Your task to perform on an android device: turn on notifications settings in the gmail app Image 0: 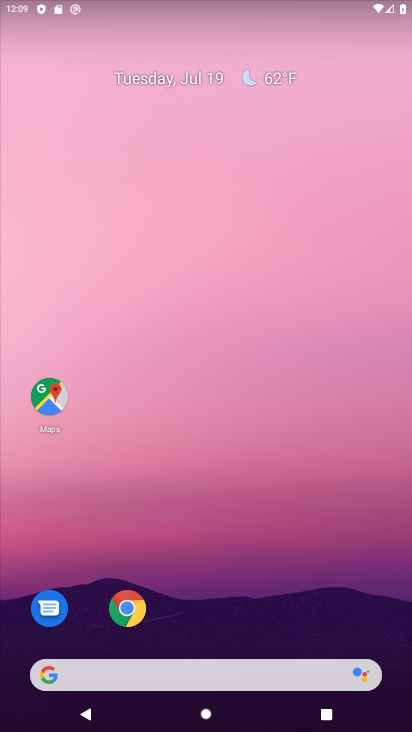
Step 0: drag from (213, 643) to (233, 6)
Your task to perform on an android device: turn on notifications settings in the gmail app Image 1: 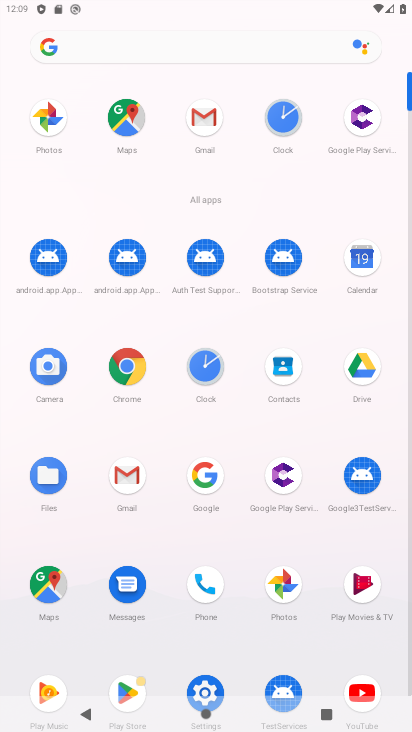
Step 1: click (122, 471)
Your task to perform on an android device: turn on notifications settings in the gmail app Image 2: 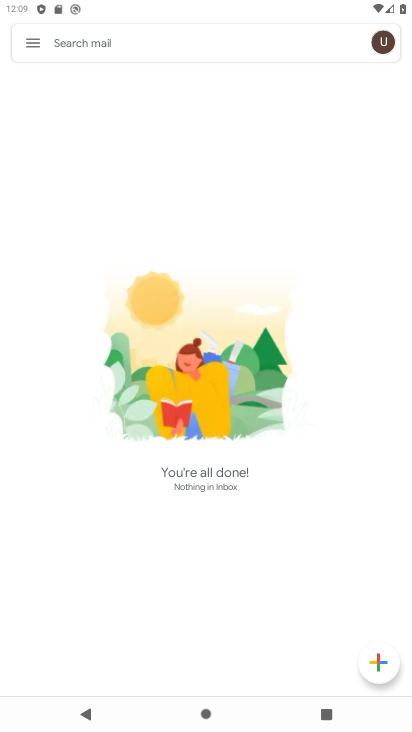
Step 2: click (39, 41)
Your task to perform on an android device: turn on notifications settings in the gmail app Image 3: 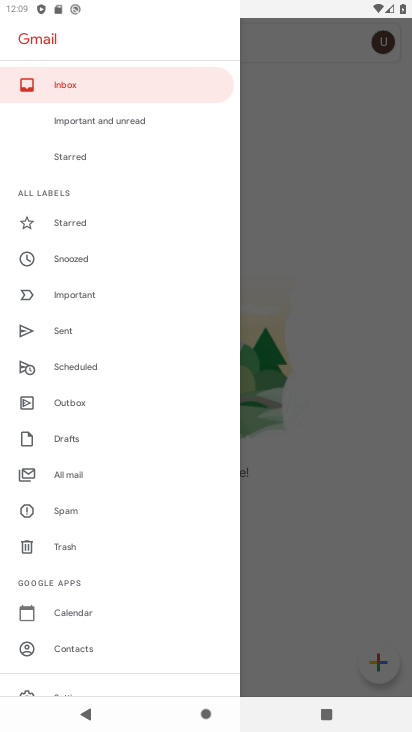
Step 3: drag from (108, 648) to (124, 201)
Your task to perform on an android device: turn on notifications settings in the gmail app Image 4: 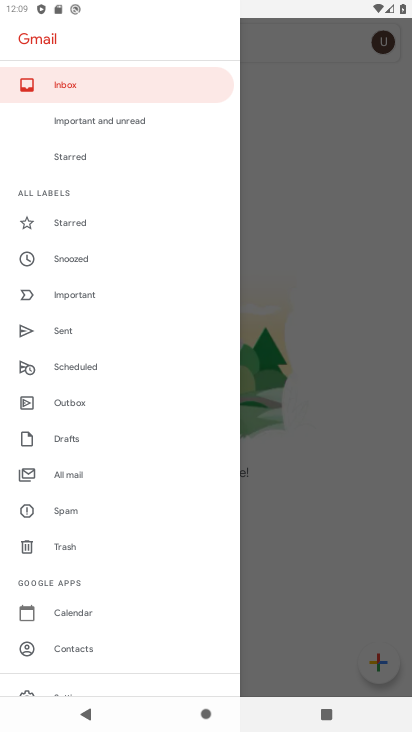
Step 4: drag from (70, 634) to (100, 154)
Your task to perform on an android device: turn on notifications settings in the gmail app Image 5: 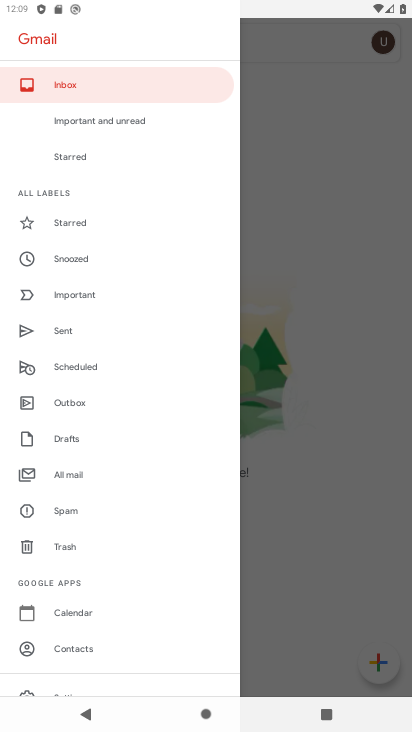
Step 5: drag from (62, 642) to (69, 200)
Your task to perform on an android device: turn on notifications settings in the gmail app Image 6: 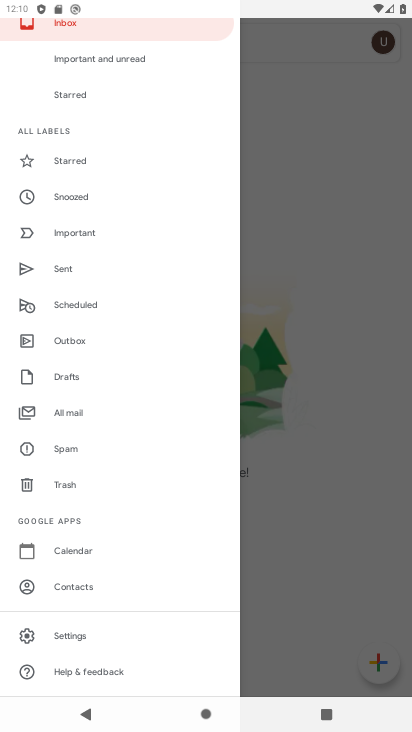
Step 6: click (43, 631)
Your task to perform on an android device: turn on notifications settings in the gmail app Image 7: 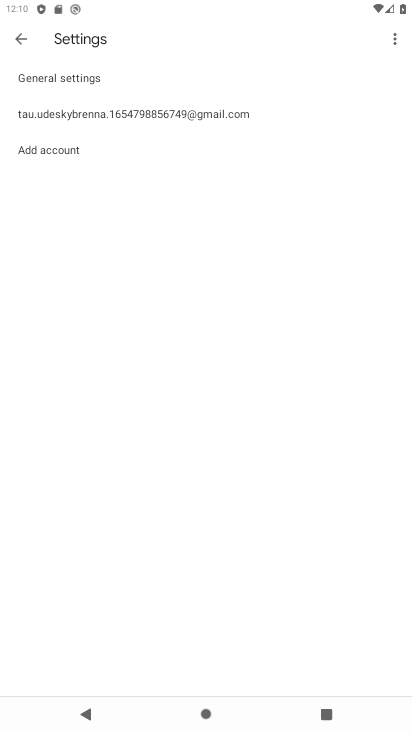
Step 7: click (107, 72)
Your task to perform on an android device: turn on notifications settings in the gmail app Image 8: 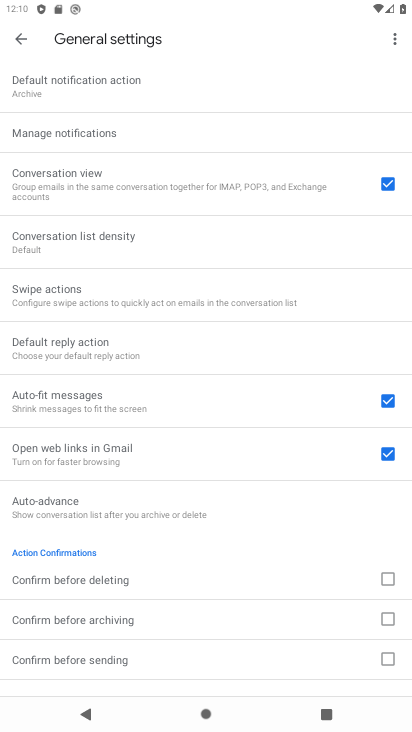
Step 8: click (127, 129)
Your task to perform on an android device: turn on notifications settings in the gmail app Image 9: 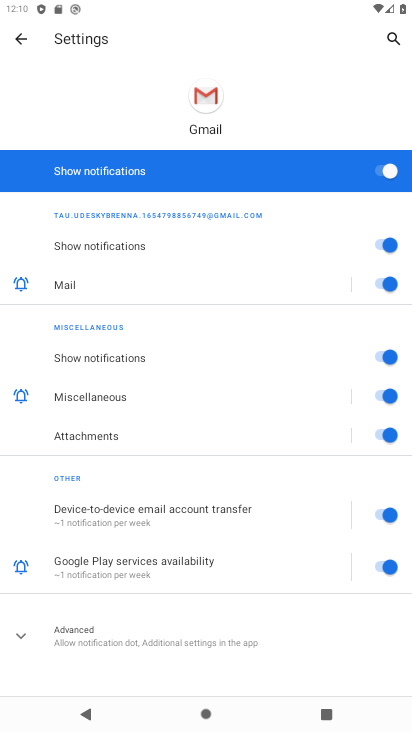
Step 9: task complete